Your task to perform on an android device: Do I have any events this weekend? Image 0: 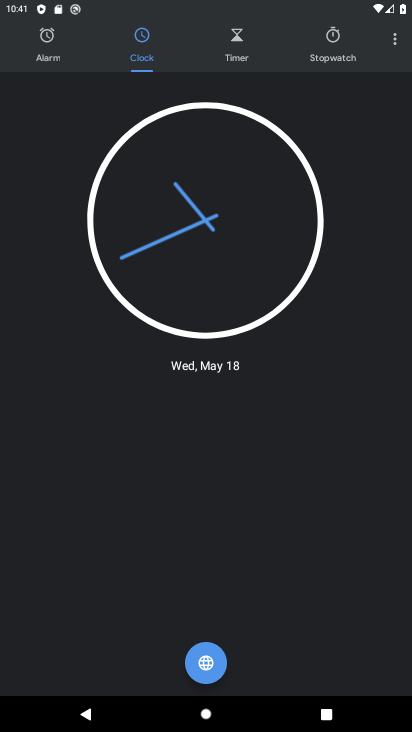
Step 0: press home button
Your task to perform on an android device: Do I have any events this weekend? Image 1: 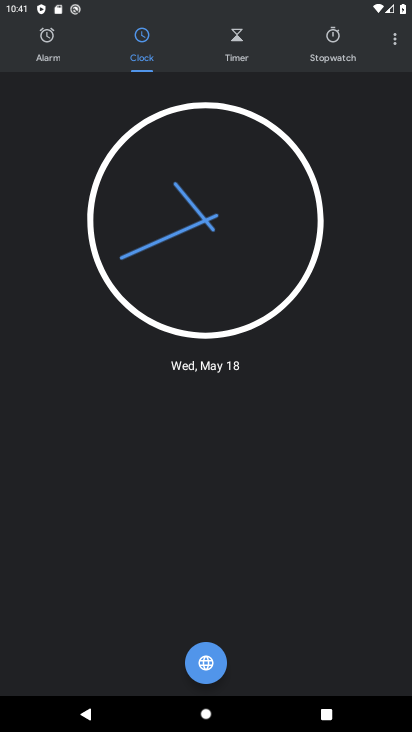
Step 1: press home button
Your task to perform on an android device: Do I have any events this weekend? Image 2: 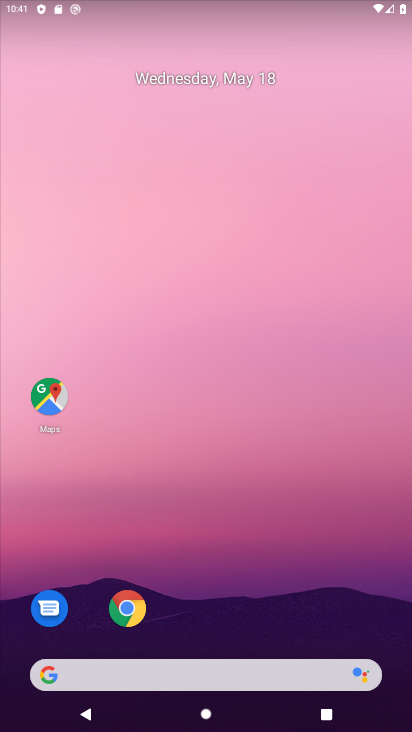
Step 2: drag from (271, 629) to (286, 31)
Your task to perform on an android device: Do I have any events this weekend? Image 3: 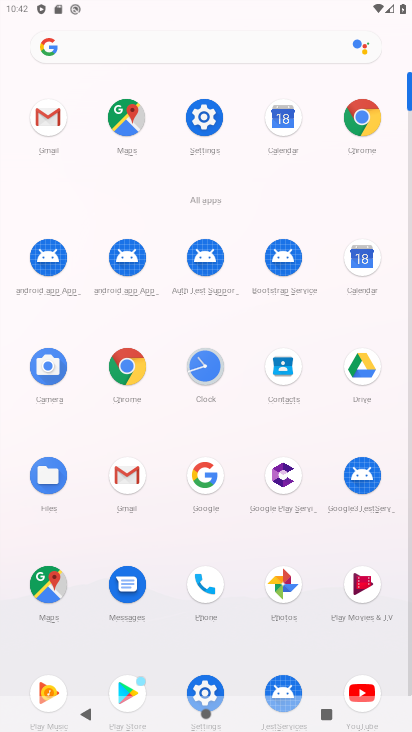
Step 3: click (366, 254)
Your task to perform on an android device: Do I have any events this weekend? Image 4: 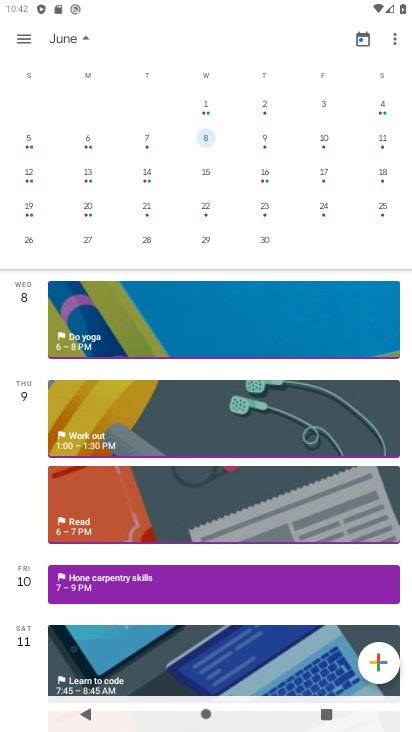
Step 4: drag from (77, 164) to (311, 123)
Your task to perform on an android device: Do I have any events this weekend? Image 5: 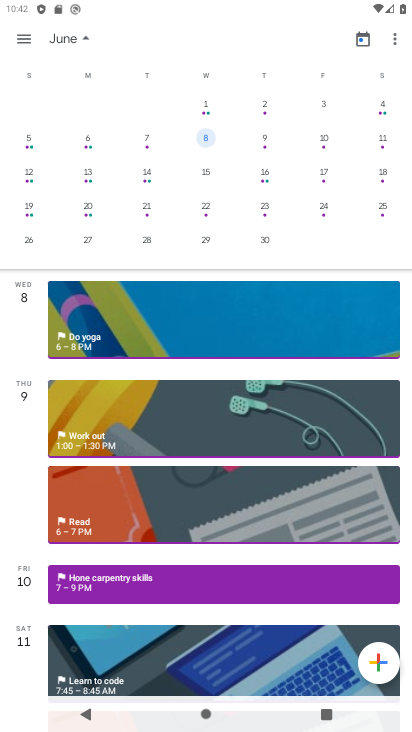
Step 5: drag from (70, 152) to (410, 100)
Your task to perform on an android device: Do I have any events this weekend? Image 6: 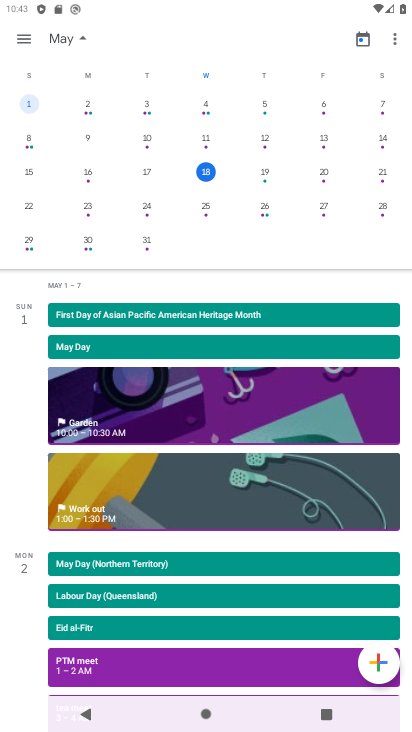
Step 6: click (389, 169)
Your task to perform on an android device: Do I have any events this weekend? Image 7: 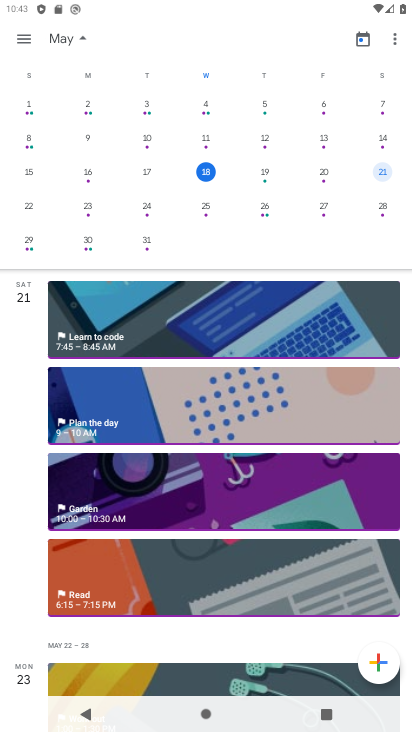
Step 7: click (328, 174)
Your task to perform on an android device: Do I have any events this weekend? Image 8: 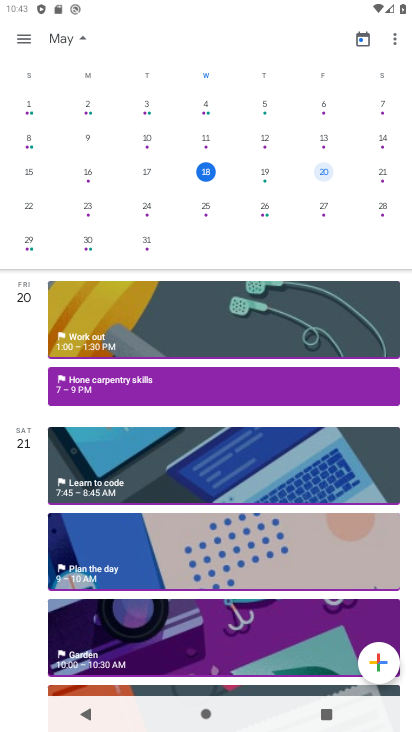
Step 8: click (81, 37)
Your task to perform on an android device: Do I have any events this weekend? Image 9: 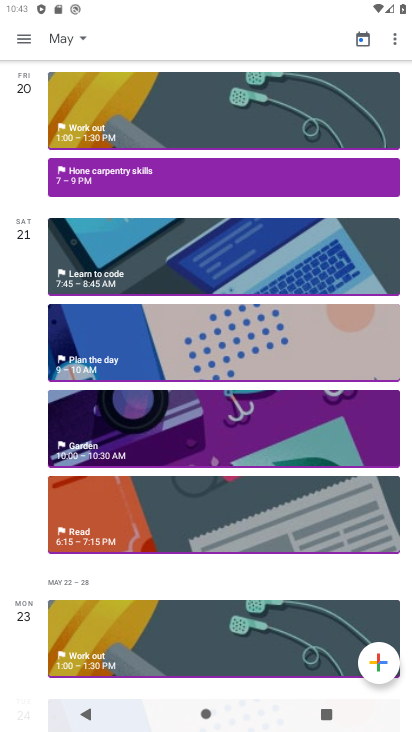
Step 9: task complete